Your task to perform on an android device: Open settings Image 0: 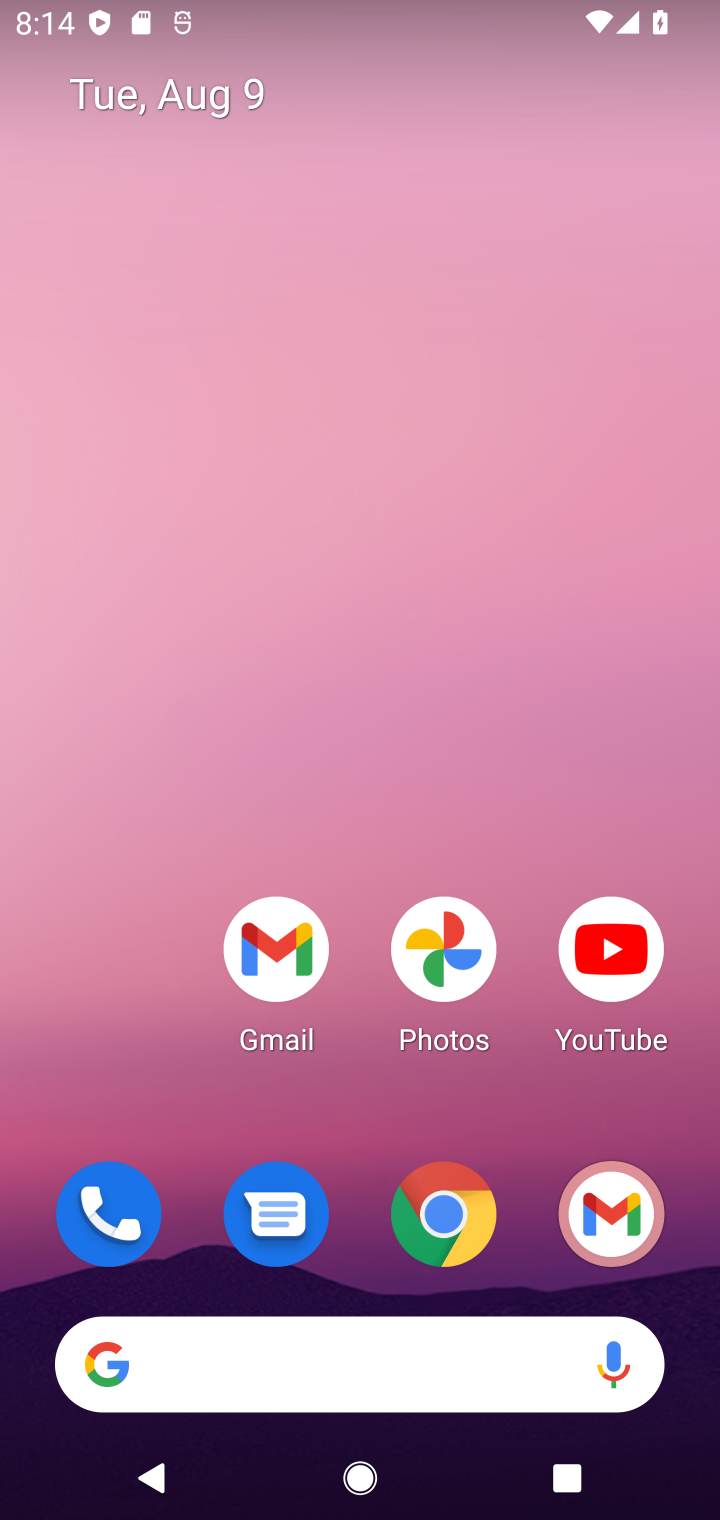
Step 0: drag from (153, 1296) to (395, 422)
Your task to perform on an android device: Open settings Image 1: 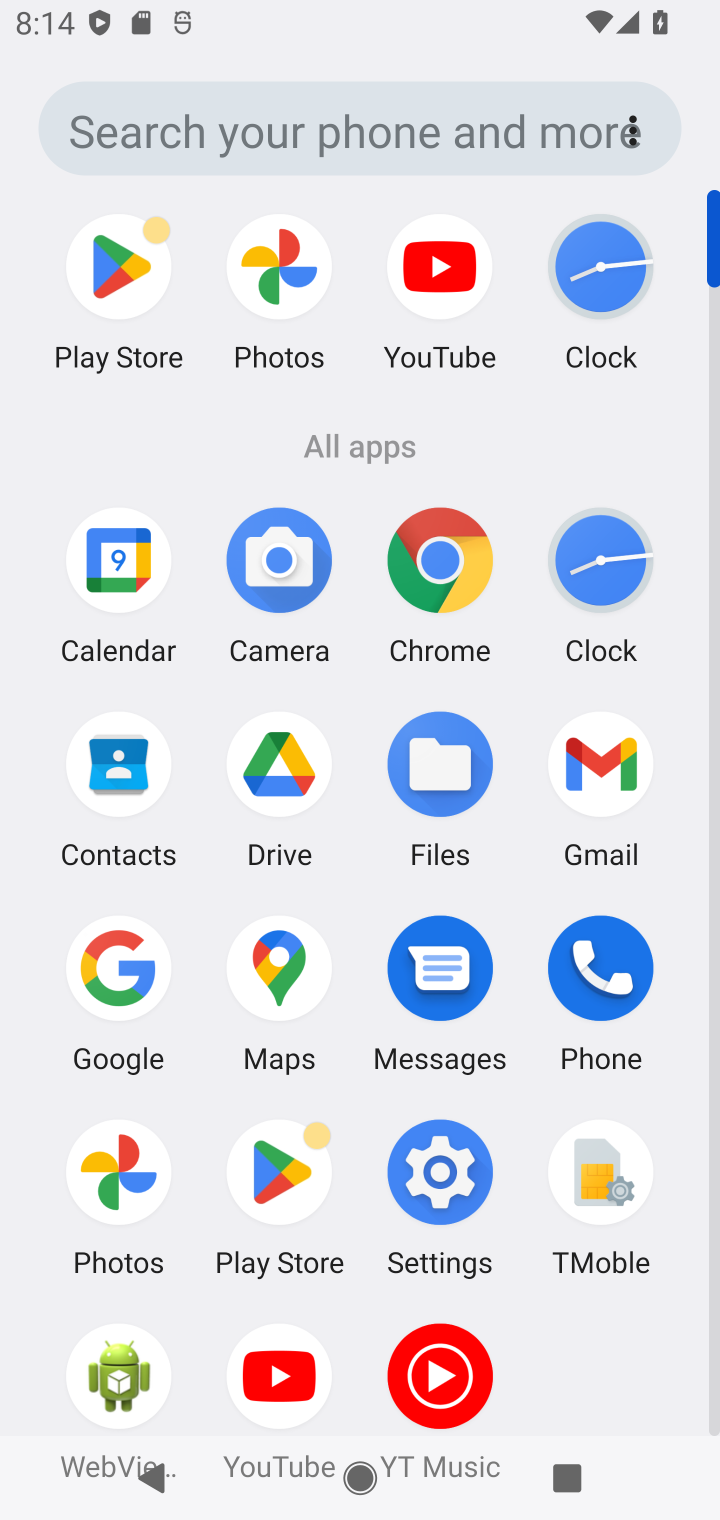
Step 1: click (479, 1163)
Your task to perform on an android device: Open settings Image 2: 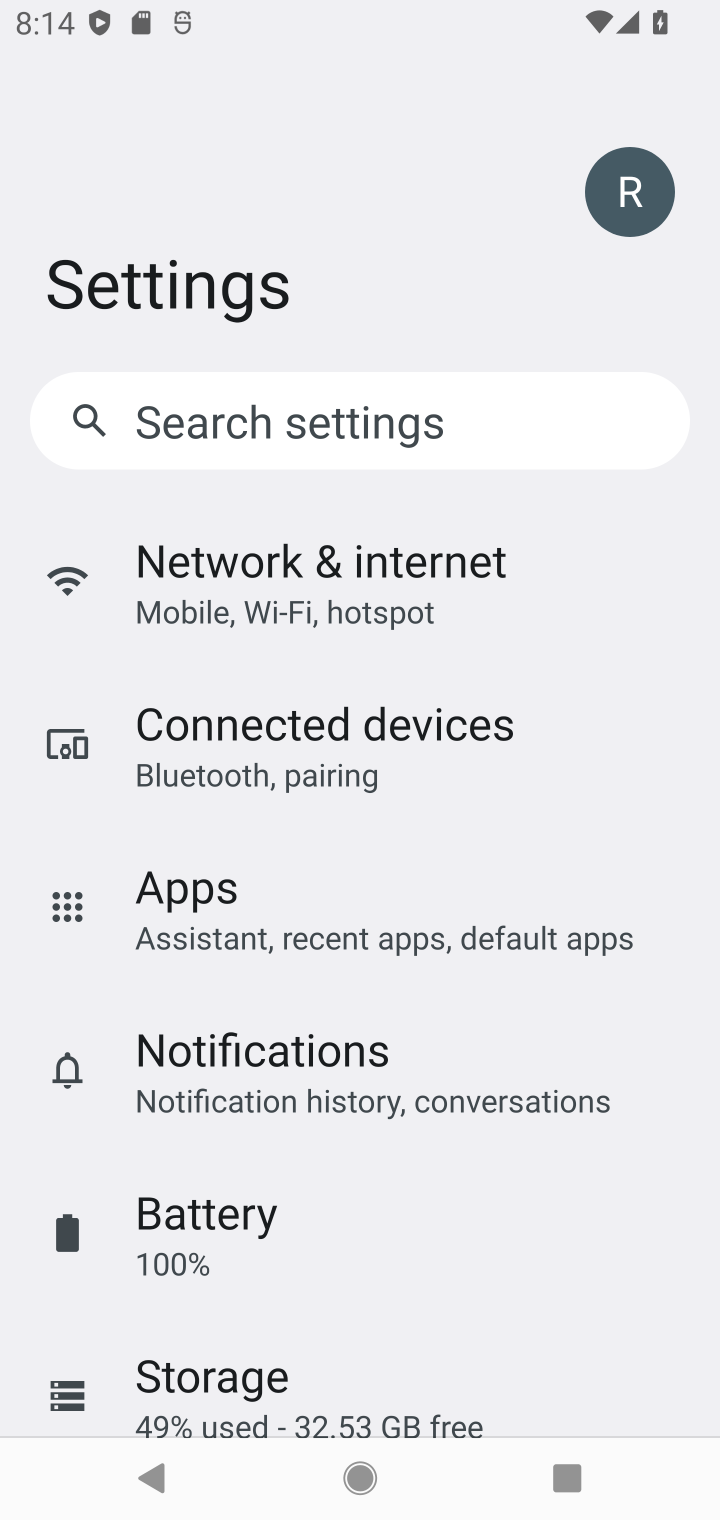
Step 2: task complete